Your task to perform on an android device: Open calendar and show me the fourth week of next month Image 0: 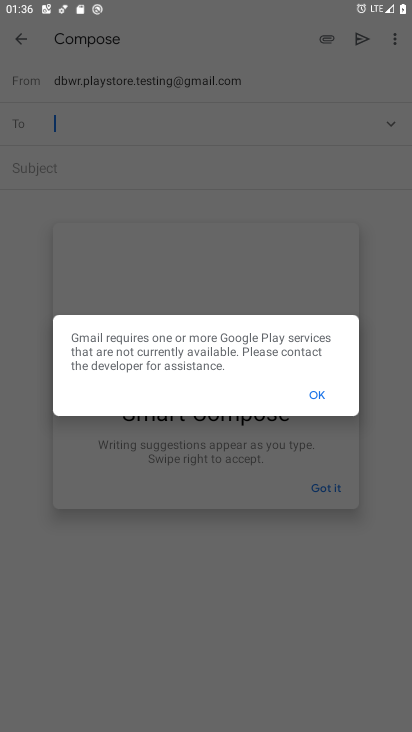
Step 0: drag from (226, 676) to (255, 470)
Your task to perform on an android device: Open calendar and show me the fourth week of next month Image 1: 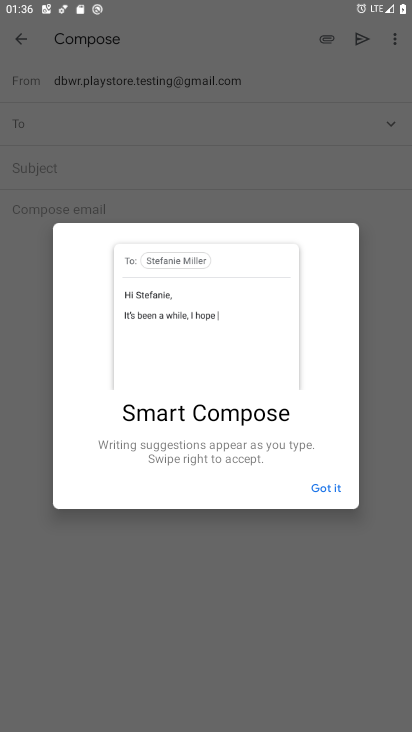
Step 1: press home button
Your task to perform on an android device: Open calendar and show me the fourth week of next month Image 2: 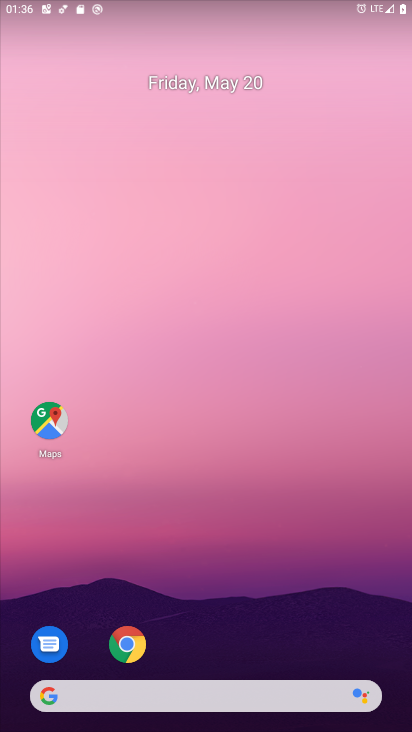
Step 2: drag from (188, 682) to (268, 296)
Your task to perform on an android device: Open calendar and show me the fourth week of next month Image 3: 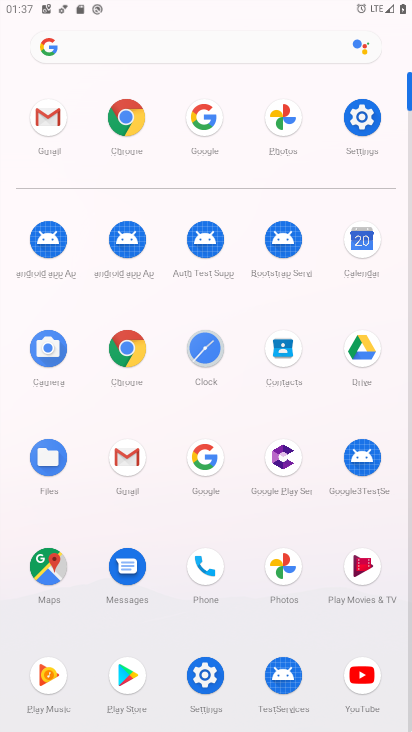
Step 3: click (363, 251)
Your task to perform on an android device: Open calendar and show me the fourth week of next month Image 4: 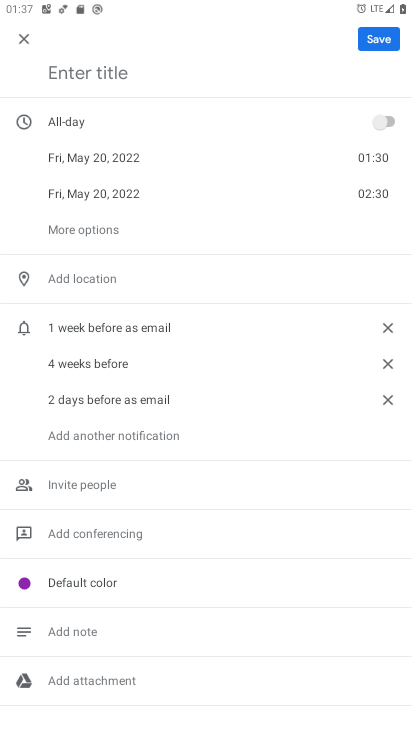
Step 4: click (21, 39)
Your task to perform on an android device: Open calendar and show me the fourth week of next month Image 5: 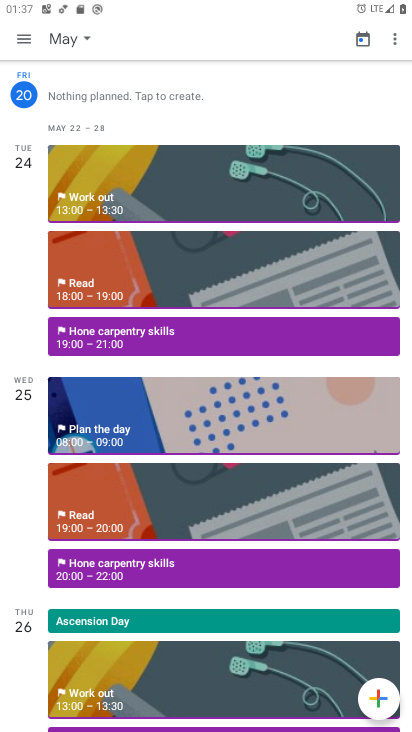
Step 5: click (71, 30)
Your task to perform on an android device: Open calendar and show me the fourth week of next month Image 6: 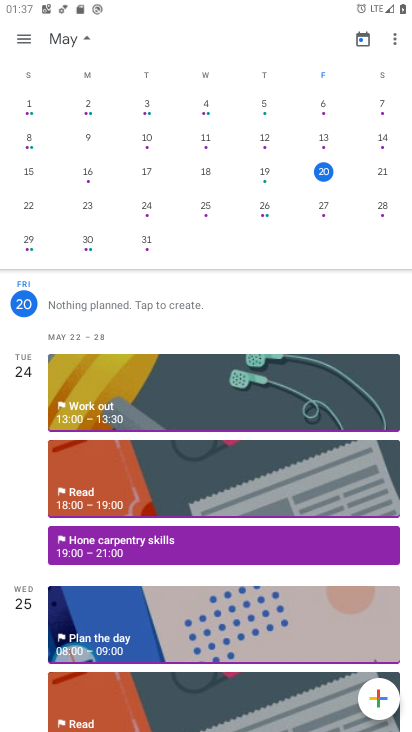
Step 6: drag from (331, 220) to (4, 210)
Your task to perform on an android device: Open calendar and show me the fourth week of next month Image 7: 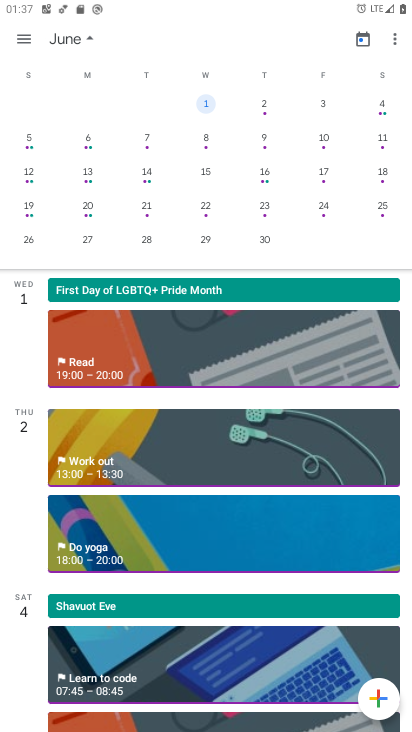
Step 7: click (24, 202)
Your task to perform on an android device: Open calendar and show me the fourth week of next month Image 8: 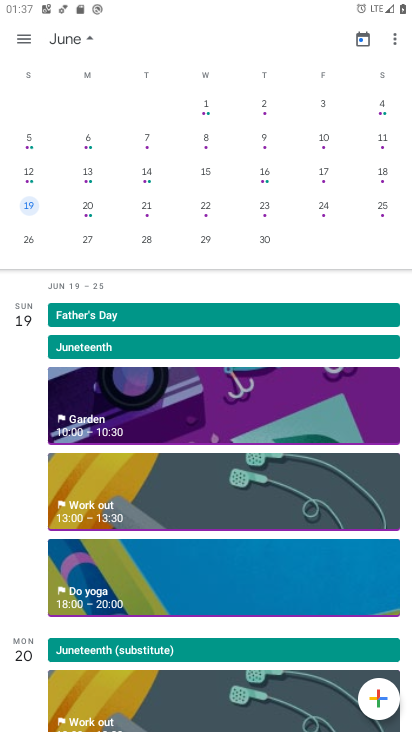
Step 8: task complete